Your task to perform on an android device: Go to Yahoo.com Image 0: 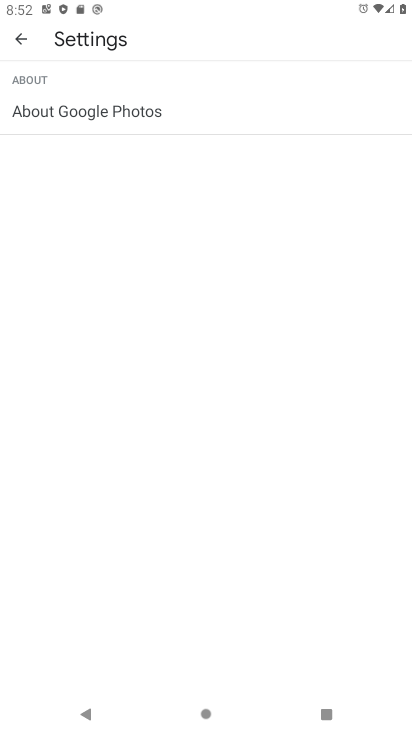
Step 0: press home button
Your task to perform on an android device: Go to Yahoo.com Image 1: 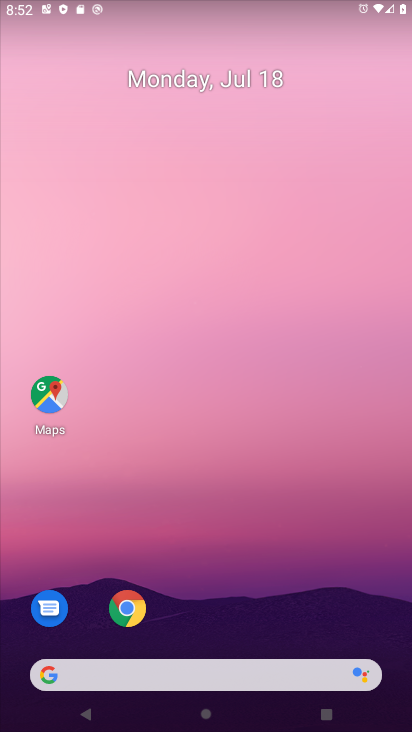
Step 1: drag from (240, 729) to (240, 119)
Your task to perform on an android device: Go to Yahoo.com Image 2: 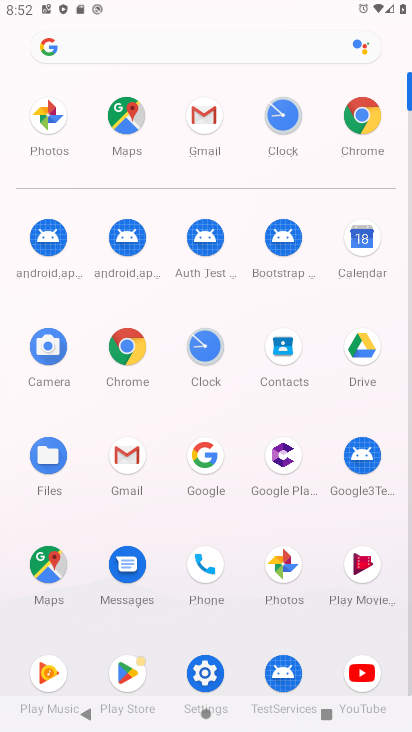
Step 2: click (126, 348)
Your task to perform on an android device: Go to Yahoo.com Image 3: 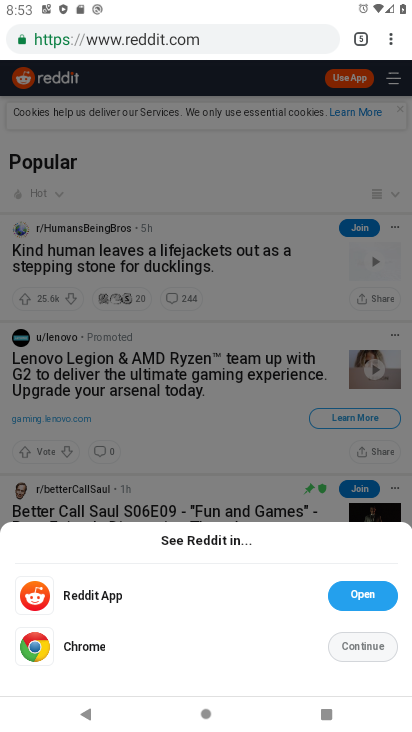
Step 3: click (393, 43)
Your task to perform on an android device: Go to Yahoo.com Image 4: 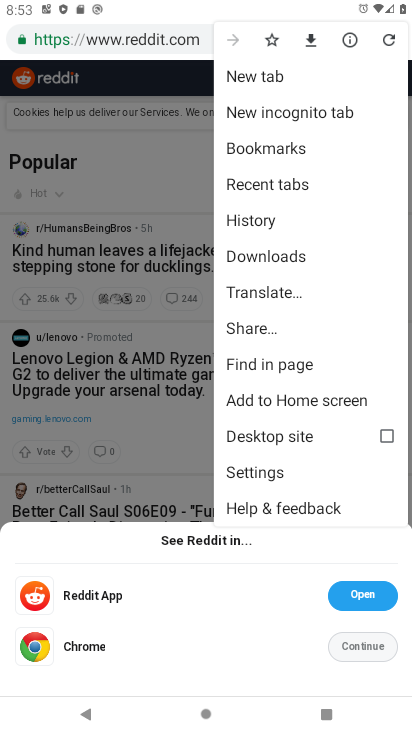
Step 4: click (241, 72)
Your task to perform on an android device: Go to Yahoo.com Image 5: 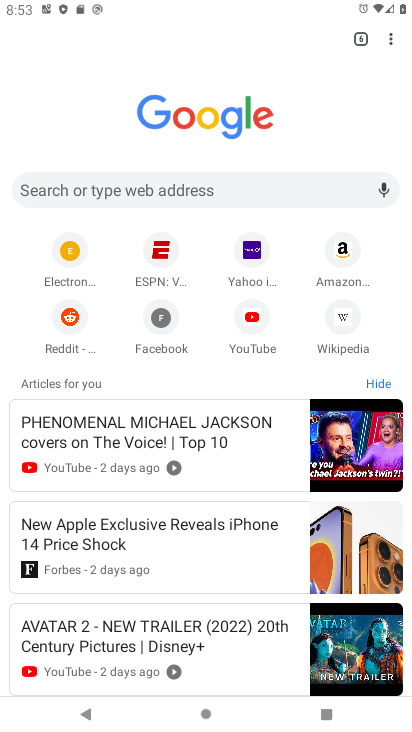
Step 5: click (250, 250)
Your task to perform on an android device: Go to Yahoo.com Image 6: 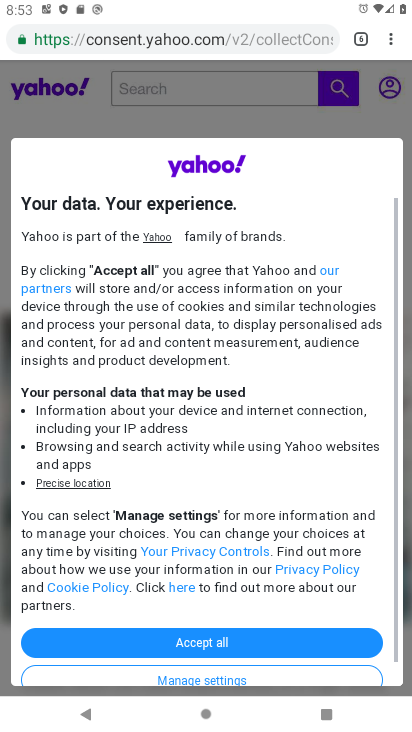
Step 6: task complete